Your task to perform on an android device: turn on improve location accuracy Image 0: 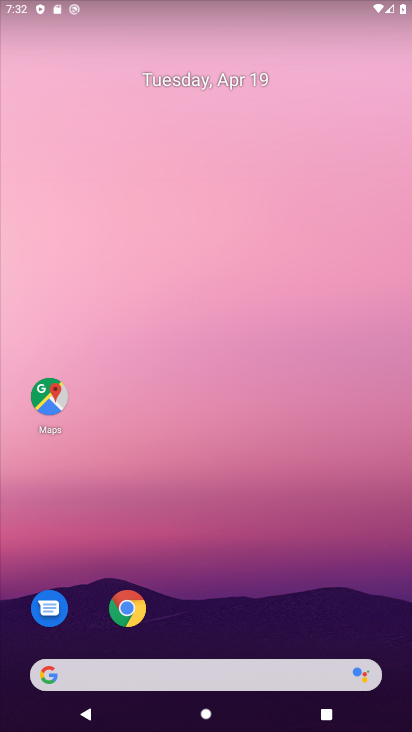
Step 0: drag from (204, 580) to (173, 113)
Your task to perform on an android device: turn on improve location accuracy Image 1: 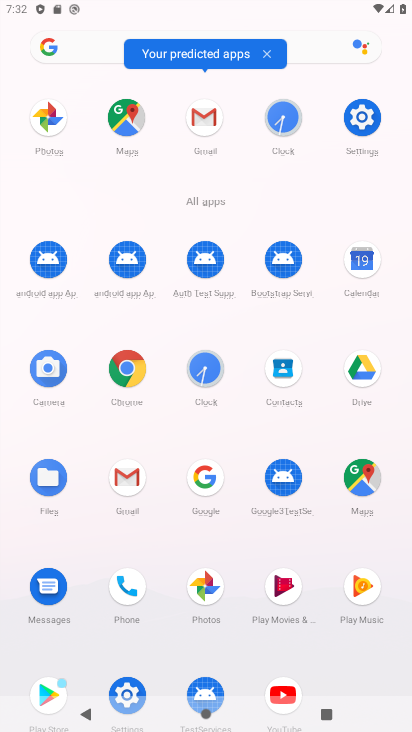
Step 1: click (364, 148)
Your task to perform on an android device: turn on improve location accuracy Image 2: 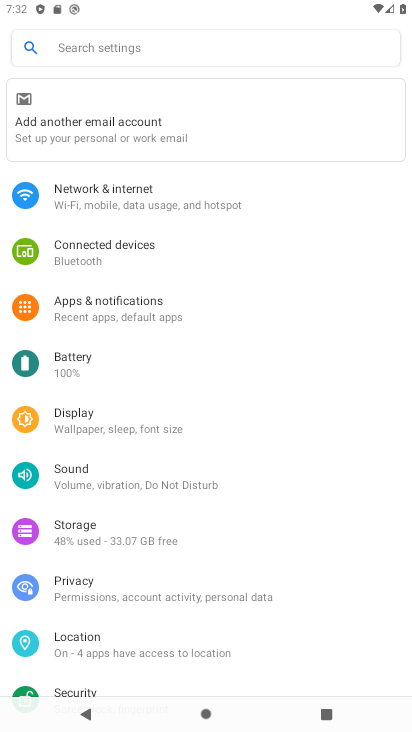
Step 2: click (215, 659)
Your task to perform on an android device: turn on improve location accuracy Image 3: 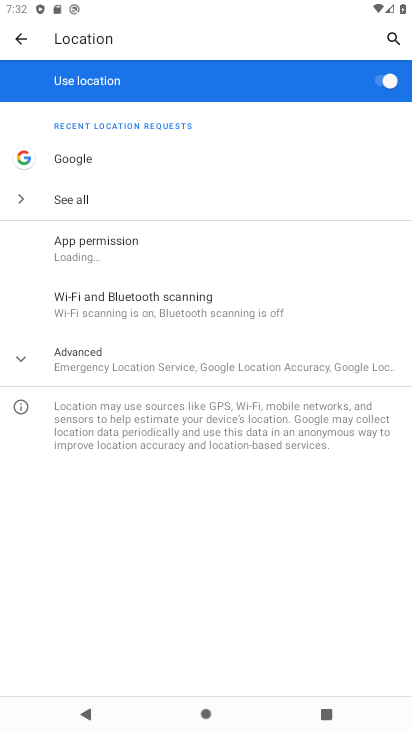
Step 3: click (227, 367)
Your task to perform on an android device: turn on improve location accuracy Image 4: 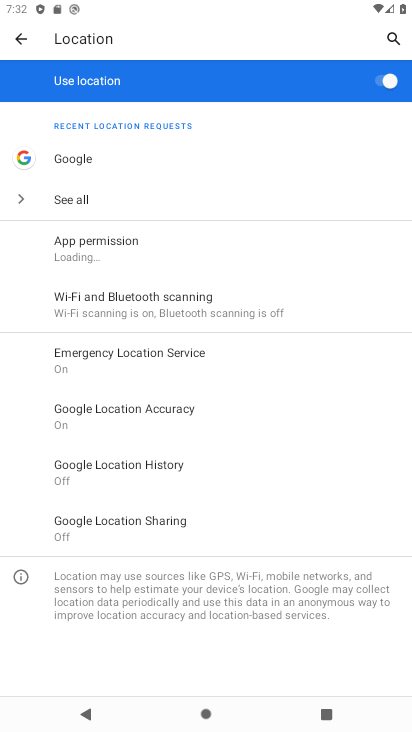
Step 4: click (223, 406)
Your task to perform on an android device: turn on improve location accuracy Image 5: 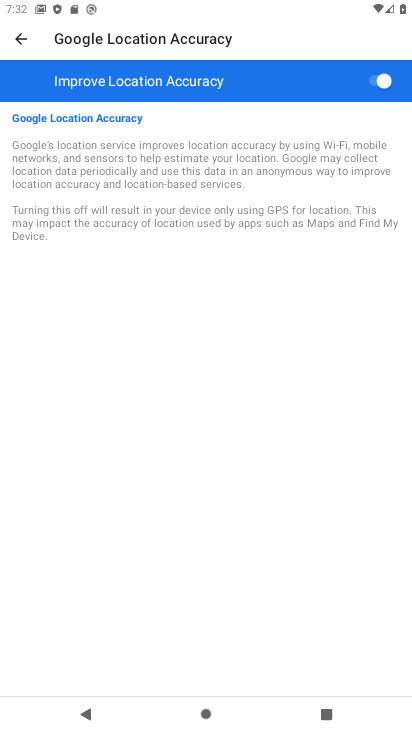
Step 5: task complete